Your task to perform on an android device: Go to location settings Image 0: 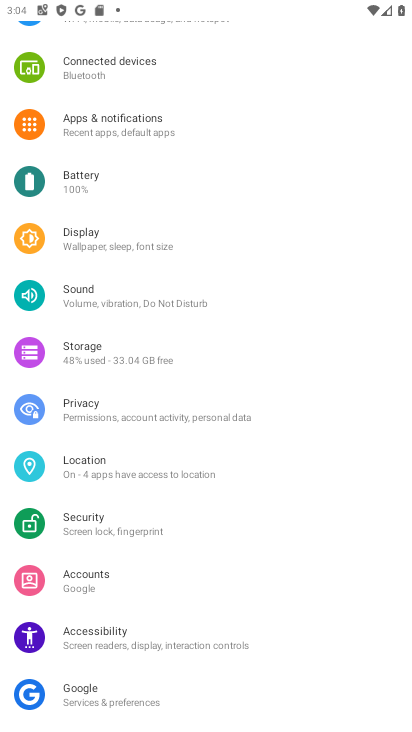
Step 0: click (117, 476)
Your task to perform on an android device: Go to location settings Image 1: 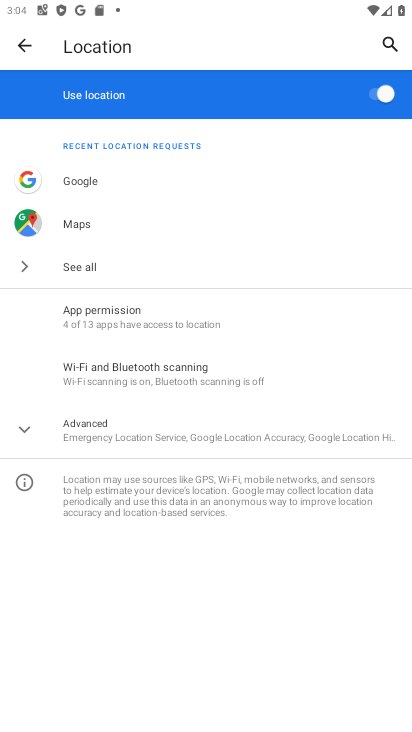
Step 1: task complete